Your task to perform on an android device: open wifi settings Image 0: 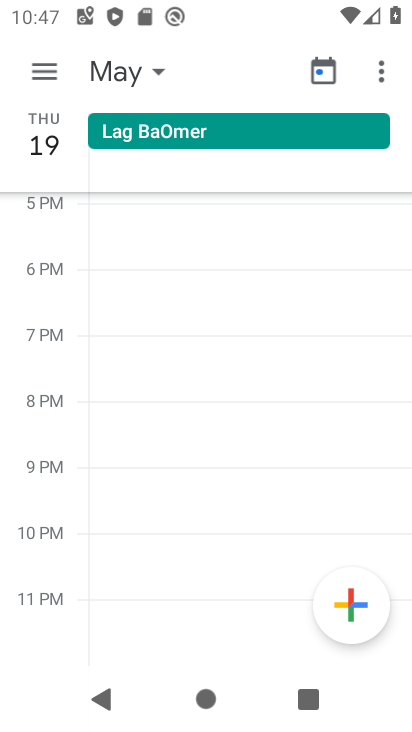
Step 0: press home button
Your task to perform on an android device: open wifi settings Image 1: 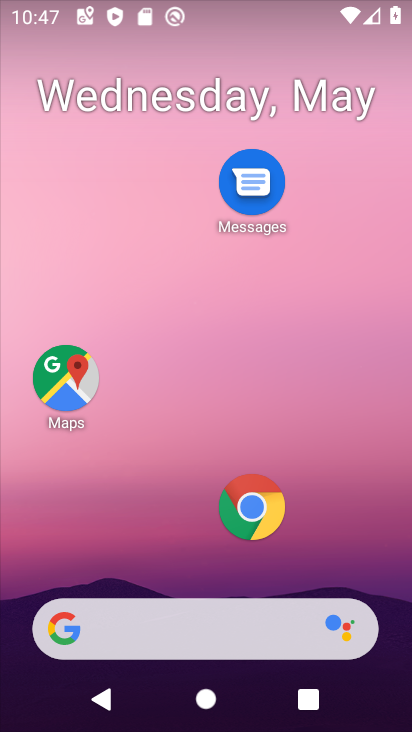
Step 1: drag from (201, 580) to (195, 54)
Your task to perform on an android device: open wifi settings Image 2: 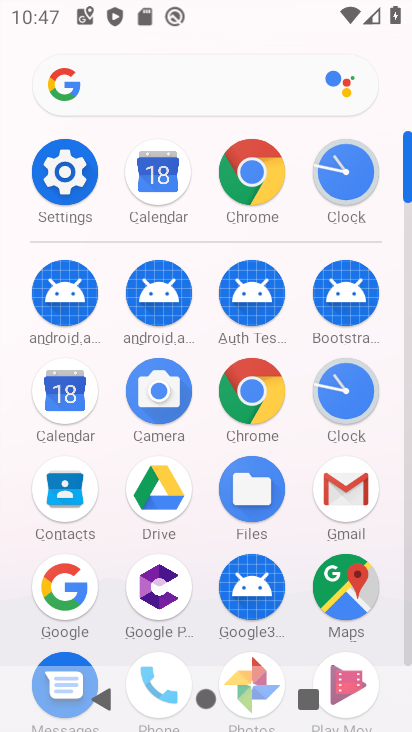
Step 2: click (59, 167)
Your task to perform on an android device: open wifi settings Image 3: 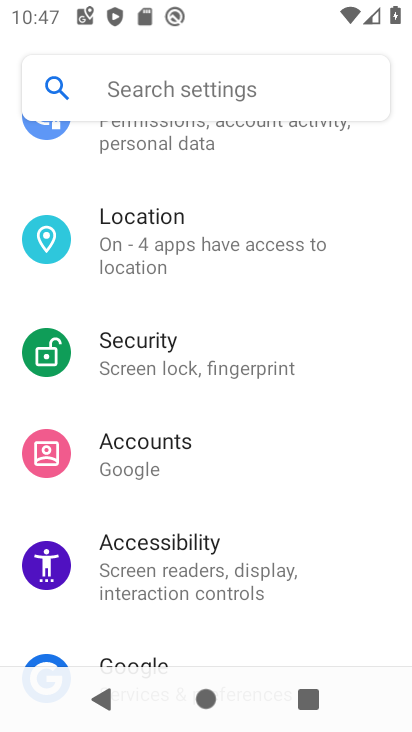
Step 3: drag from (181, 171) to (191, 653)
Your task to perform on an android device: open wifi settings Image 4: 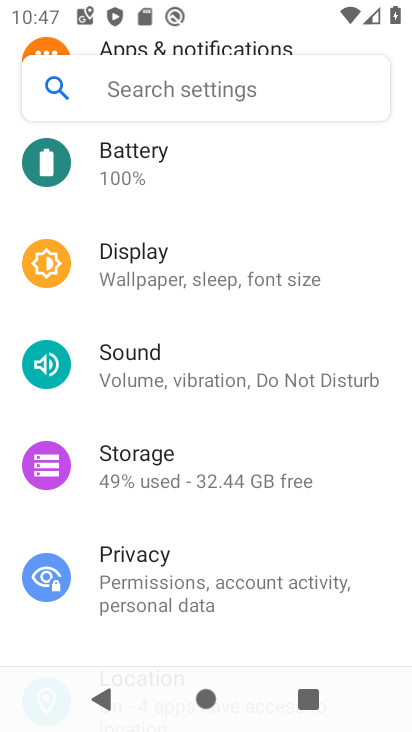
Step 4: drag from (175, 164) to (166, 662)
Your task to perform on an android device: open wifi settings Image 5: 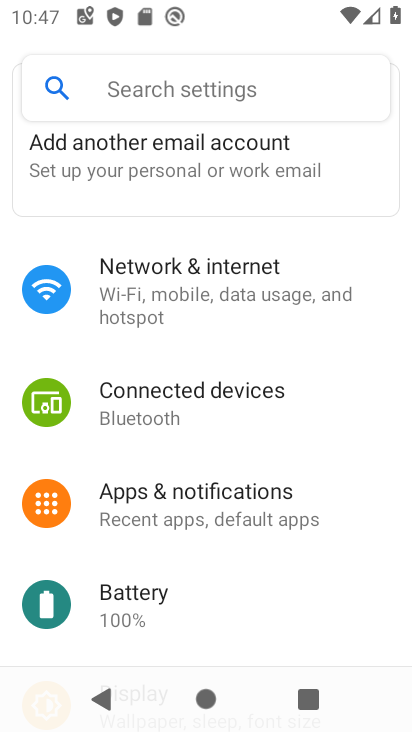
Step 5: click (191, 303)
Your task to perform on an android device: open wifi settings Image 6: 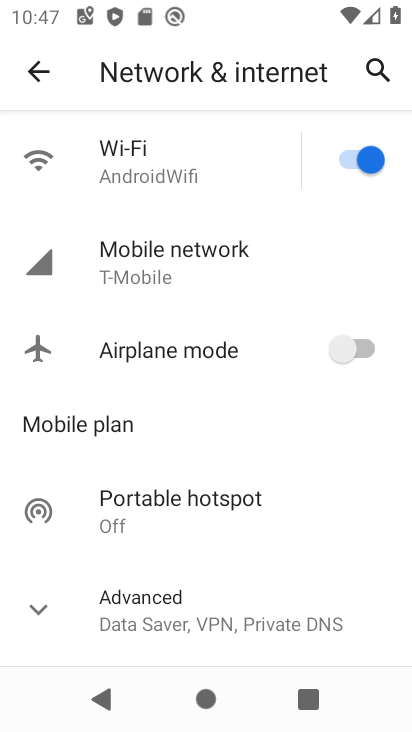
Step 6: click (177, 148)
Your task to perform on an android device: open wifi settings Image 7: 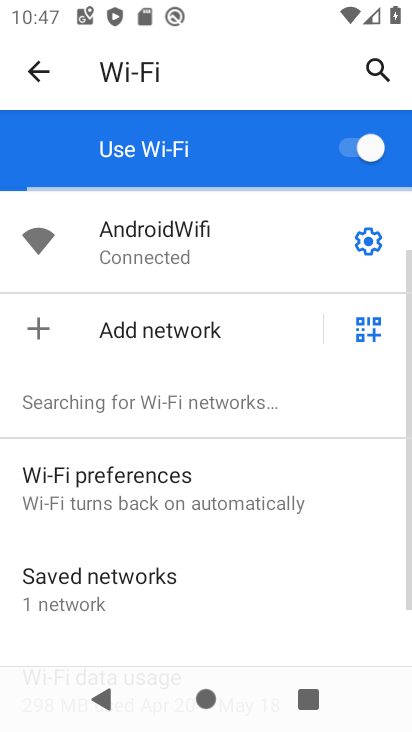
Step 7: task complete